Your task to perform on an android device: check android version Image 0: 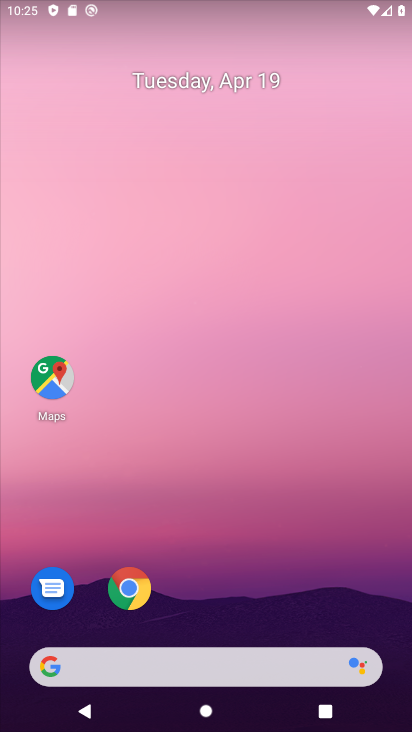
Step 0: click (136, 585)
Your task to perform on an android device: check android version Image 1: 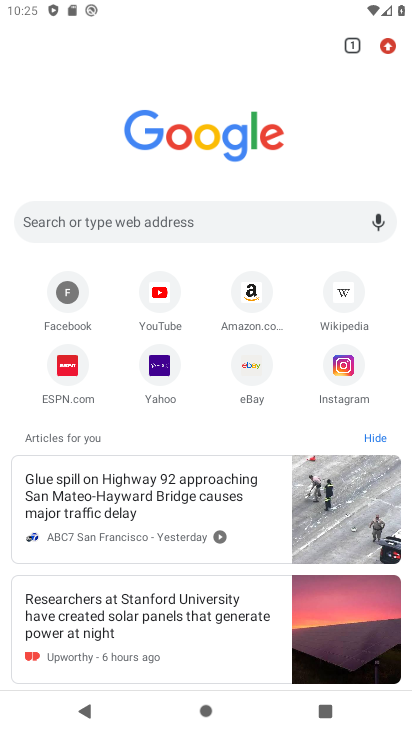
Step 1: press home button
Your task to perform on an android device: check android version Image 2: 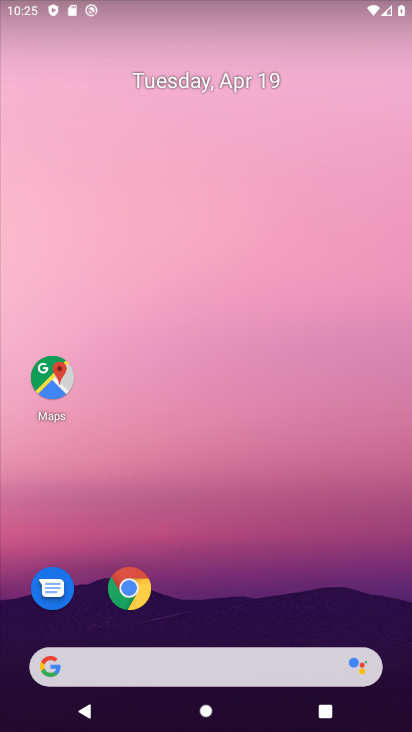
Step 2: drag from (221, 622) to (190, 7)
Your task to perform on an android device: check android version Image 3: 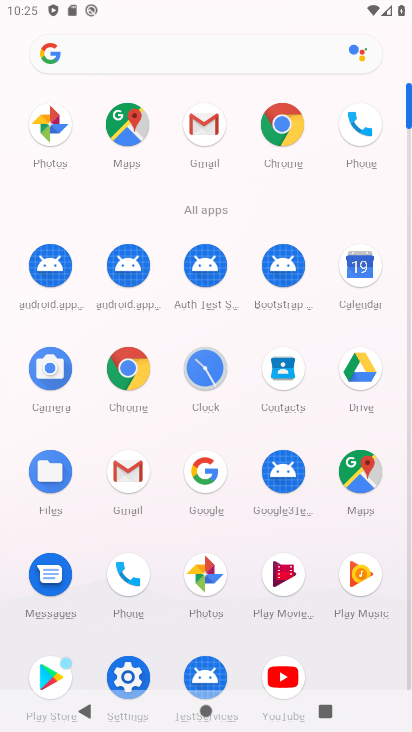
Step 3: click (132, 666)
Your task to perform on an android device: check android version Image 4: 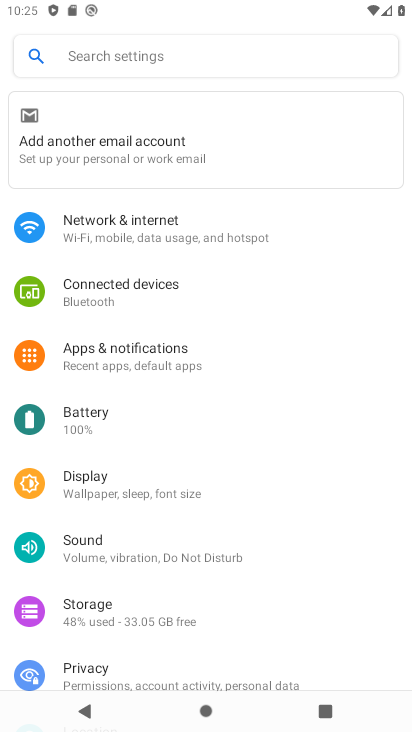
Step 4: drag from (132, 666) to (152, 92)
Your task to perform on an android device: check android version Image 5: 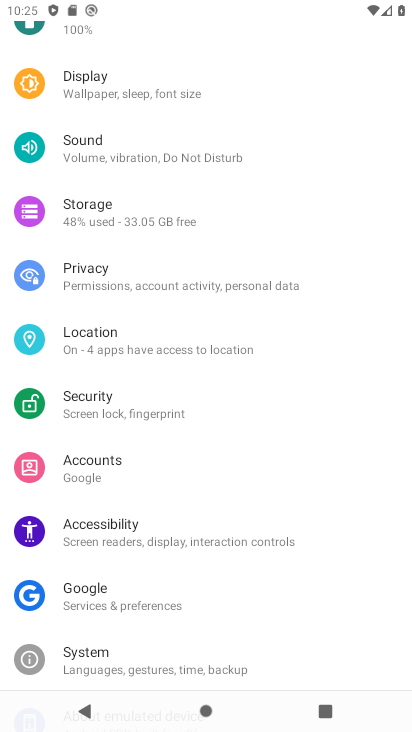
Step 5: click (59, 656)
Your task to perform on an android device: check android version Image 6: 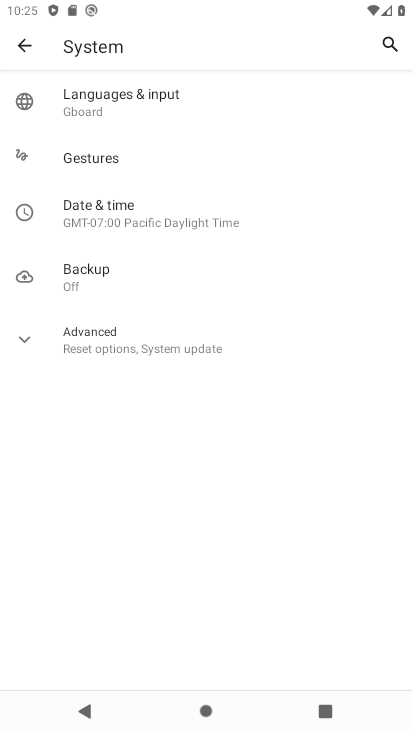
Step 6: click (151, 363)
Your task to perform on an android device: check android version Image 7: 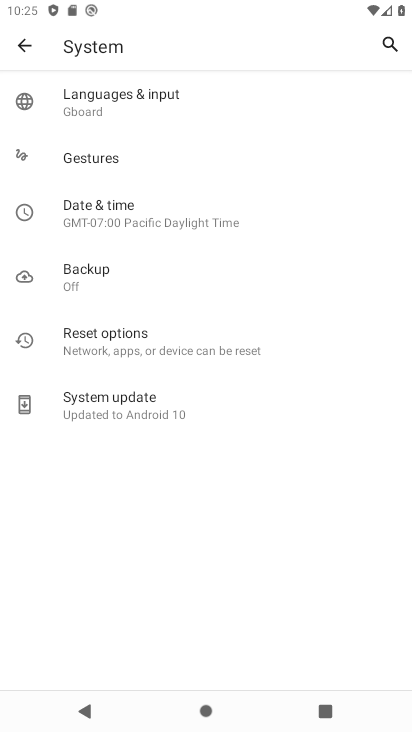
Step 7: click (19, 48)
Your task to perform on an android device: check android version Image 8: 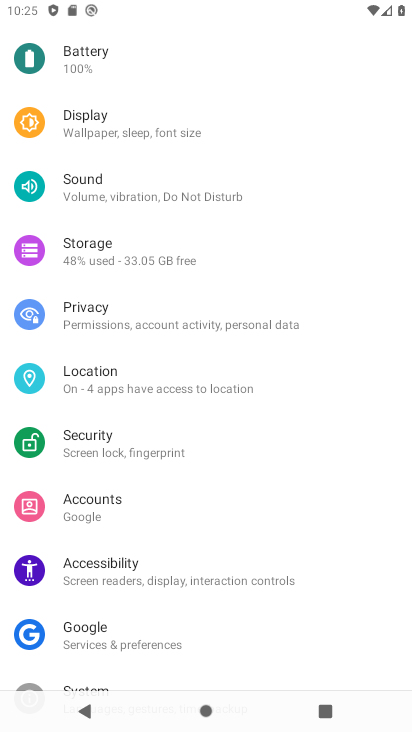
Step 8: drag from (132, 587) to (151, 70)
Your task to perform on an android device: check android version Image 9: 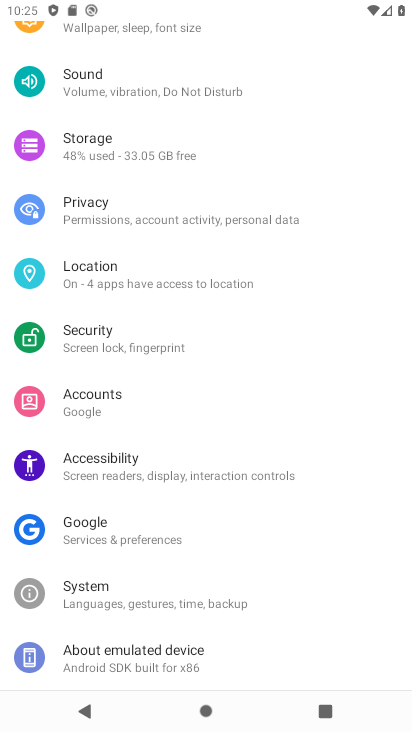
Step 9: drag from (169, 668) to (227, 103)
Your task to perform on an android device: check android version Image 10: 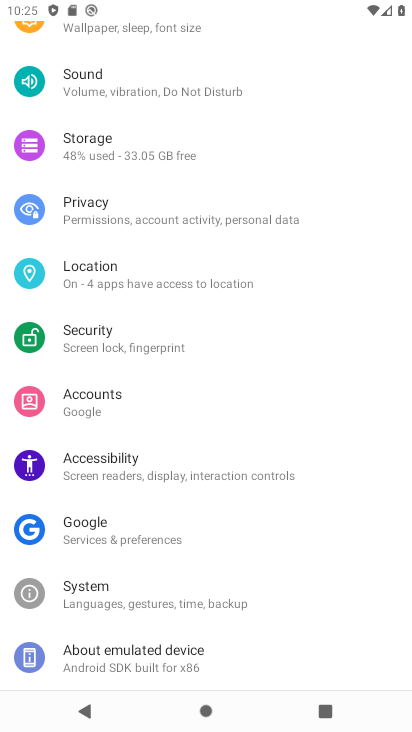
Step 10: click (154, 649)
Your task to perform on an android device: check android version Image 11: 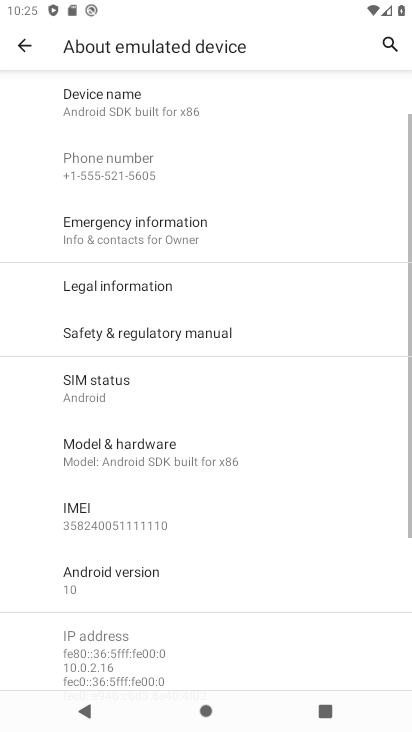
Step 11: click (165, 593)
Your task to perform on an android device: check android version Image 12: 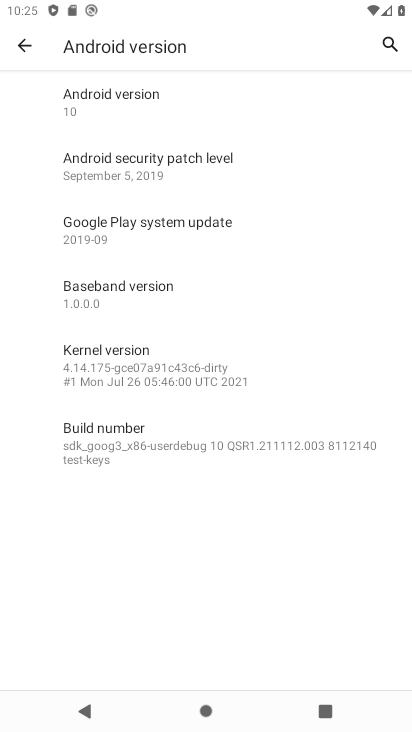
Step 12: task complete